Your task to perform on an android device: When is my next meeting? Image 0: 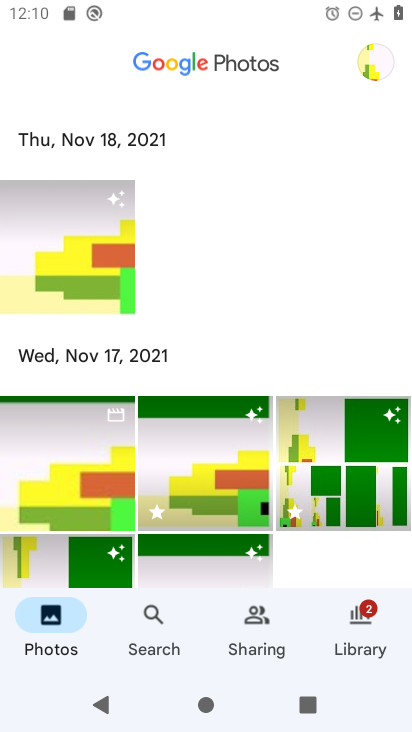
Step 0: press home button
Your task to perform on an android device: When is my next meeting? Image 1: 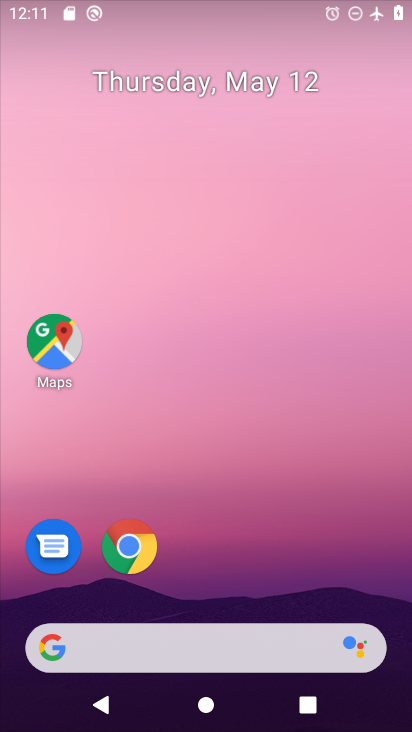
Step 1: drag from (398, 650) to (316, 86)
Your task to perform on an android device: When is my next meeting? Image 2: 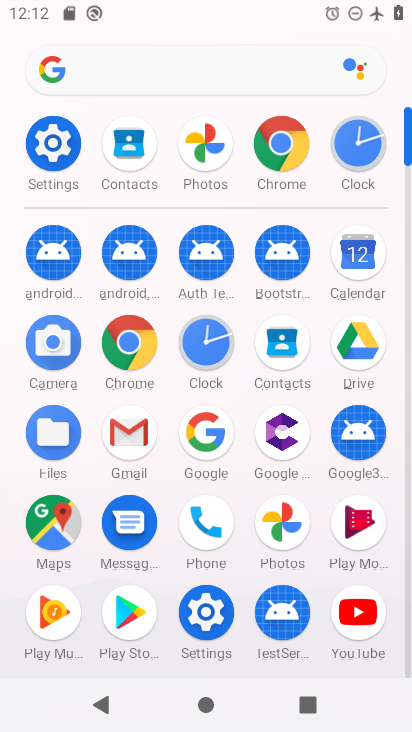
Step 2: click (367, 259)
Your task to perform on an android device: When is my next meeting? Image 3: 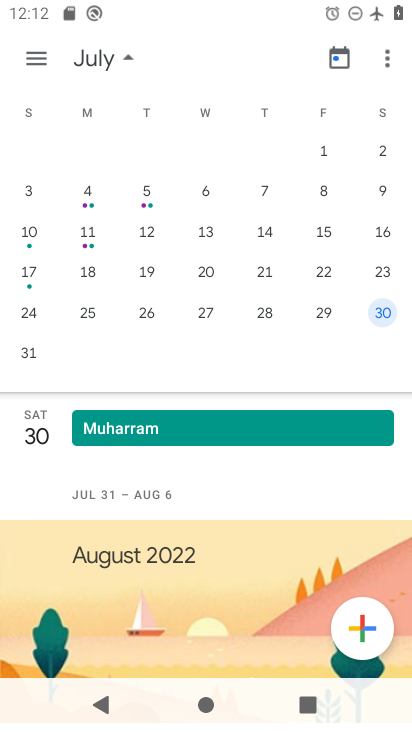
Step 3: task complete